Your task to perform on an android device: open chrome and create a bookmark for the current page Image 0: 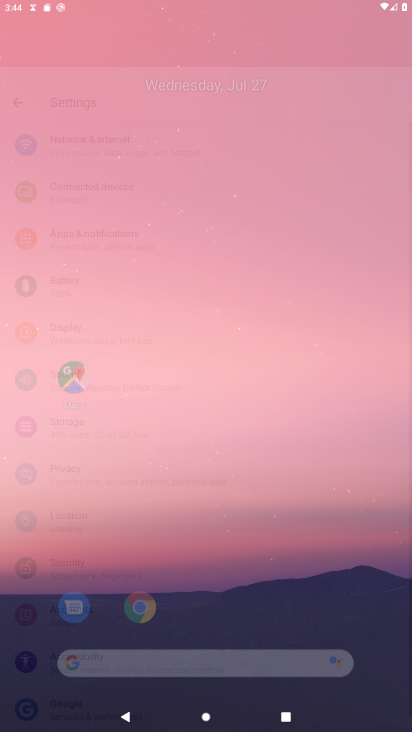
Step 0: press home button
Your task to perform on an android device: open chrome and create a bookmark for the current page Image 1: 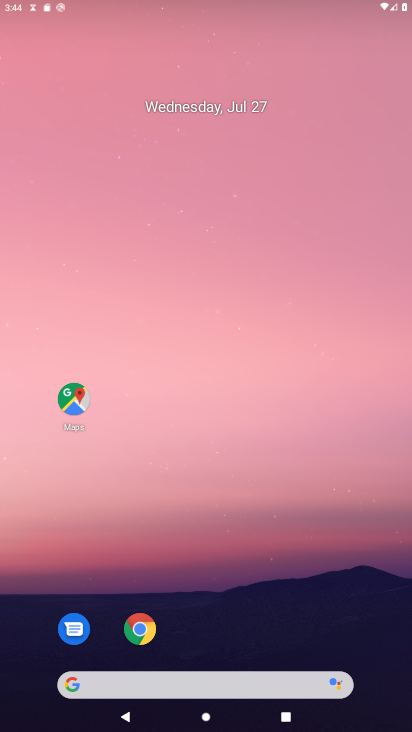
Step 1: drag from (392, 603) to (342, 18)
Your task to perform on an android device: open chrome and create a bookmark for the current page Image 2: 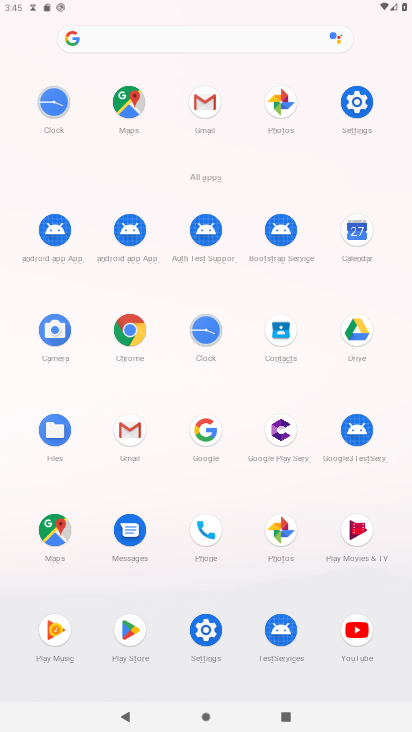
Step 2: click (121, 320)
Your task to perform on an android device: open chrome and create a bookmark for the current page Image 3: 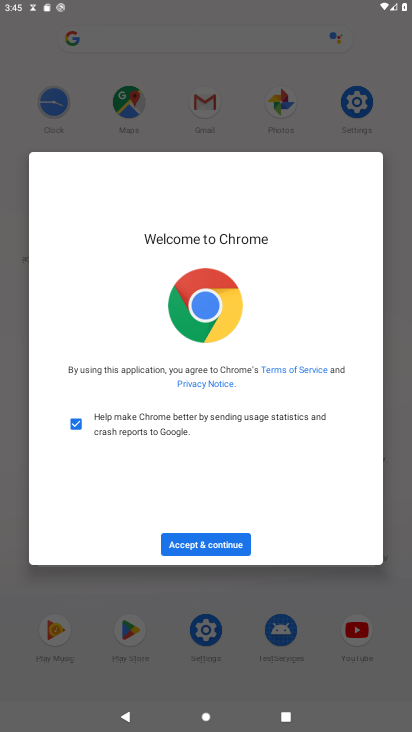
Step 3: click (181, 546)
Your task to perform on an android device: open chrome and create a bookmark for the current page Image 4: 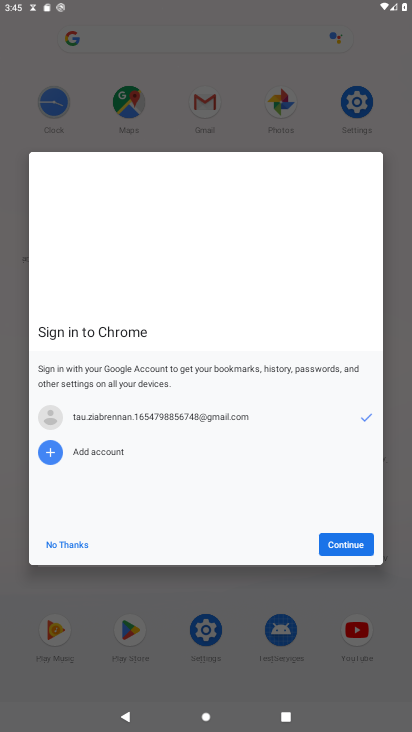
Step 4: click (323, 557)
Your task to perform on an android device: open chrome and create a bookmark for the current page Image 5: 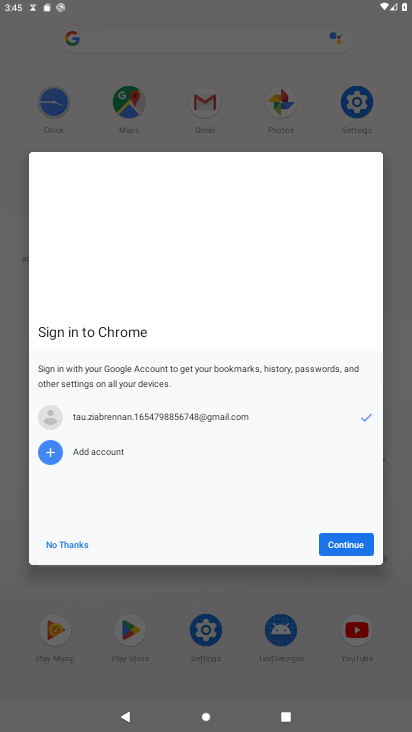
Step 5: click (323, 557)
Your task to perform on an android device: open chrome and create a bookmark for the current page Image 6: 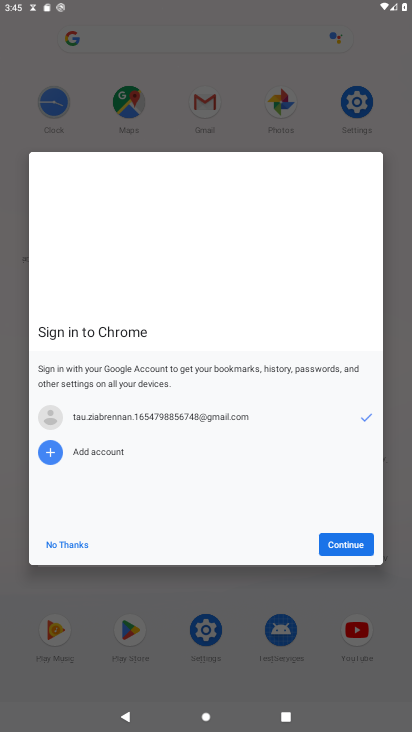
Step 6: click (323, 557)
Your task to perform on an android device: open chrome and create a bookmark for the current page Image 7: 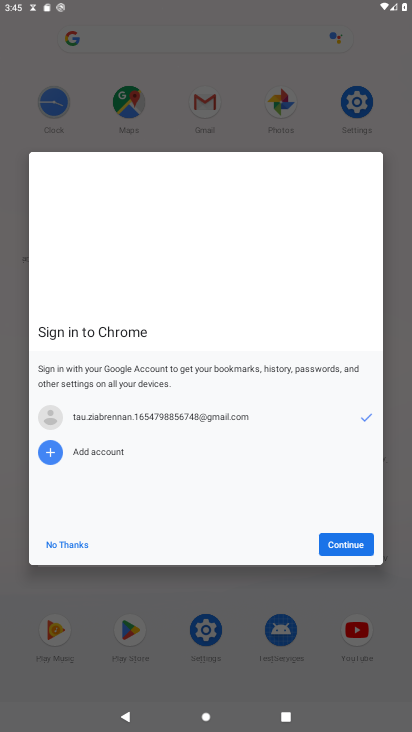
Step 7: click (323, 557)
Your task to perform on an android device: open chrome and create a bookmark for the current page Image 8: 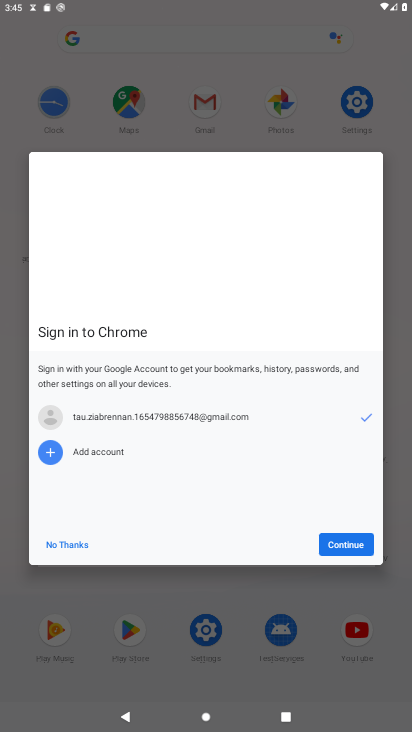
Step 8: click (330, 546)
Your task to perform on an android device: open chrome and create a bookmark for the current page Image 9: 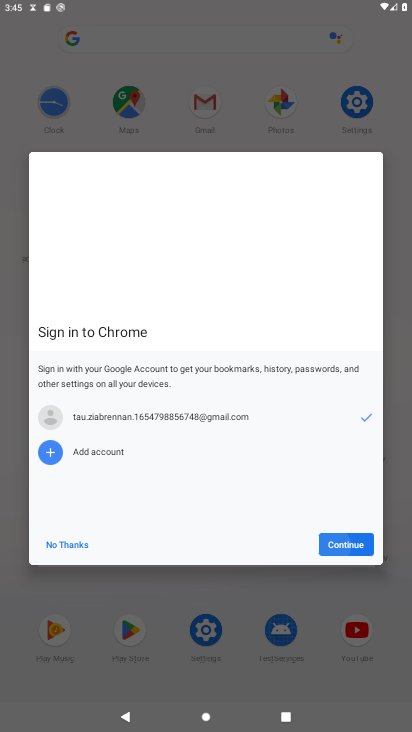
Step 9: click (330, 546)
Your task to perform on an android device: open chrome and create a bookmark for the current page Image 10: 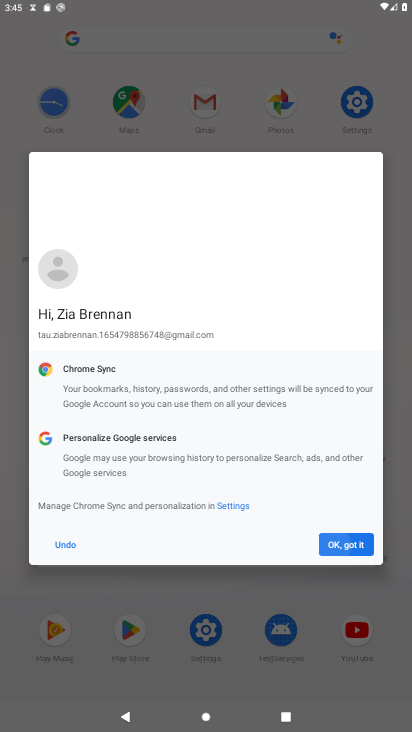
Step 10: click (330, 546)
Your task to perform on an android device: open chrome and create a bookmark for the current page Image 11: 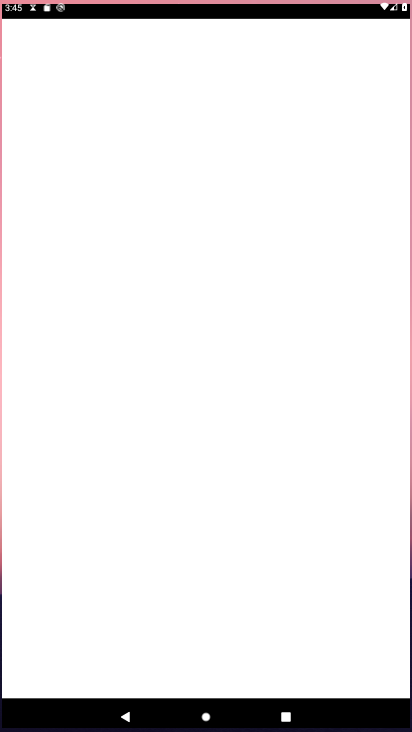
Step 11: click (330, 546)
Your task to perform on an android device: open chrome and create a bookmark for the current page Image 12: 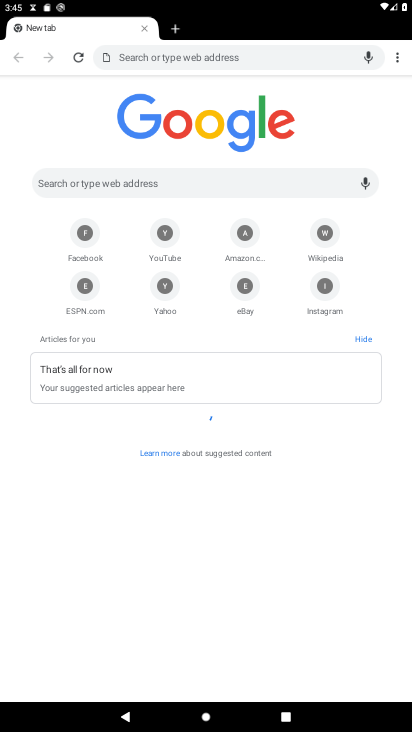
Step 12: drag from (403, 61) to (102, 52)
Your task to perform on an android device: open chrome and create a bookmark for the current page Image 13: 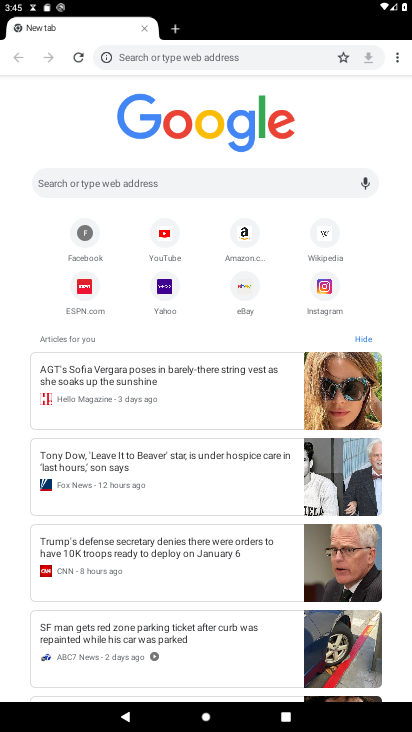
Step 13: click (340, 58)
Your task to perform on an android device: open chrome and create a bookmark for the current page Image 14: 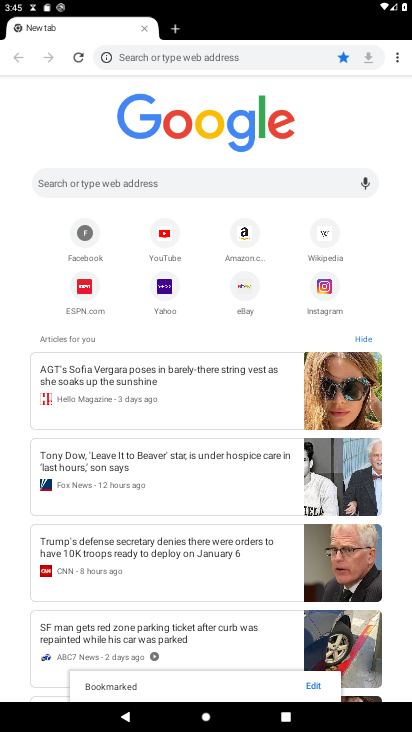
Step 14: task complete